Your task to perform on an android device: empty trash in the gmail app Image 0: 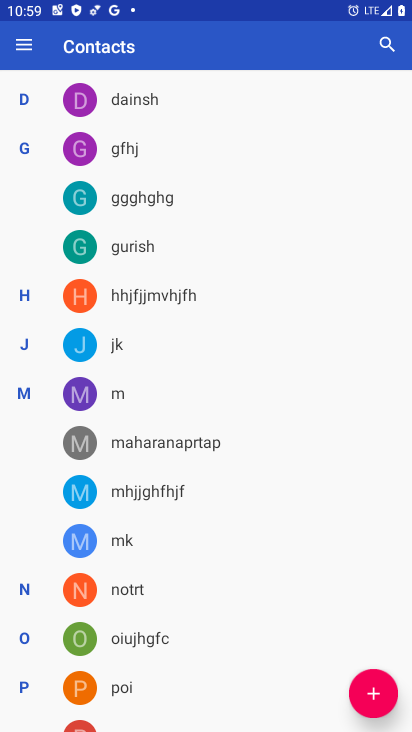
Step 0: press home button
Your task to perform on an android device: empty trash in the gmail app Image 1: 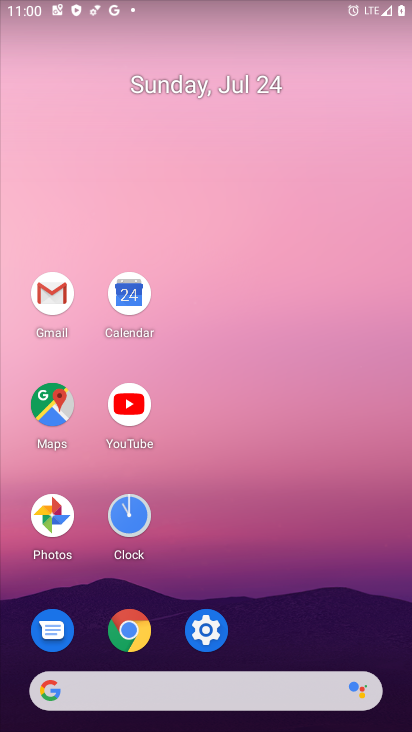
Step 1: click (49, 291)
Your task to perform on an android device: empty trash in the gmail app Image 2: 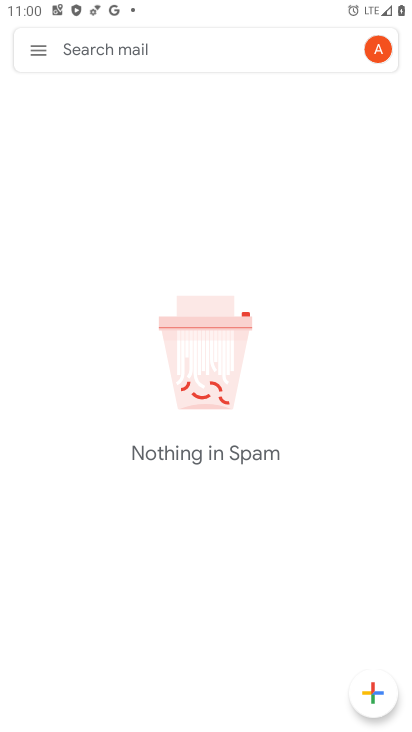
Step 2: click (28, 52)
Your task to perform on an android device: empty trash in the gmail app Image 3: 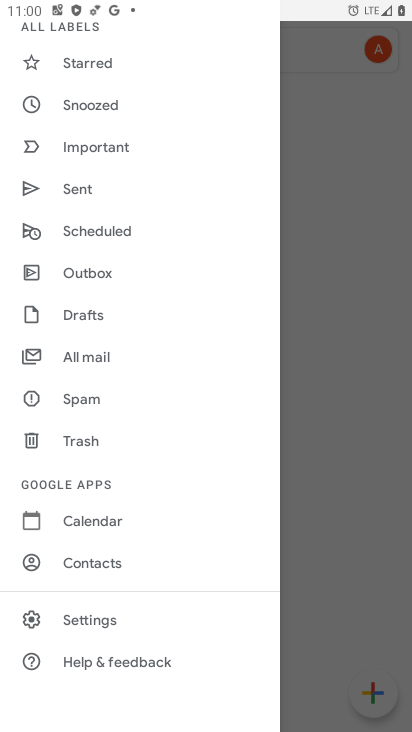
Step 3: click (75, 432)
Your task to perform on an android device: empty trash in the gmail app Image 4: 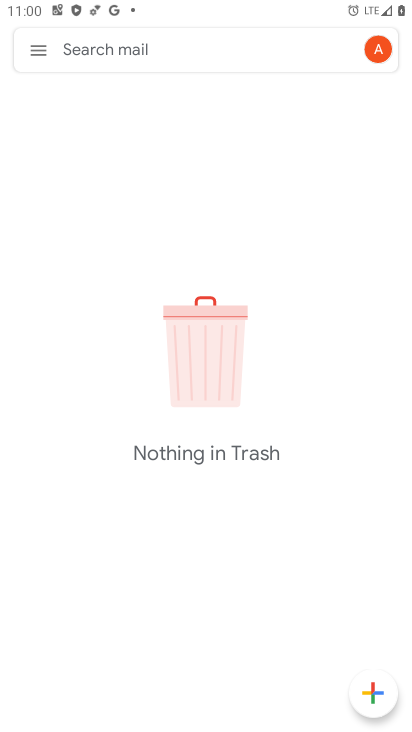
Step 4: task complete